Your task to perform on an android device: Search for Mexican restaurants on Maps Image 0: 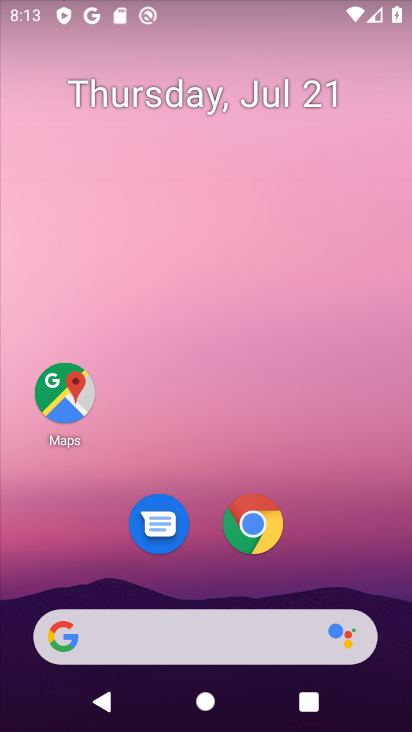
Step 0: press home button
Your task to perform on an android device: Search for Mexican restaurants on Maps Image 1: 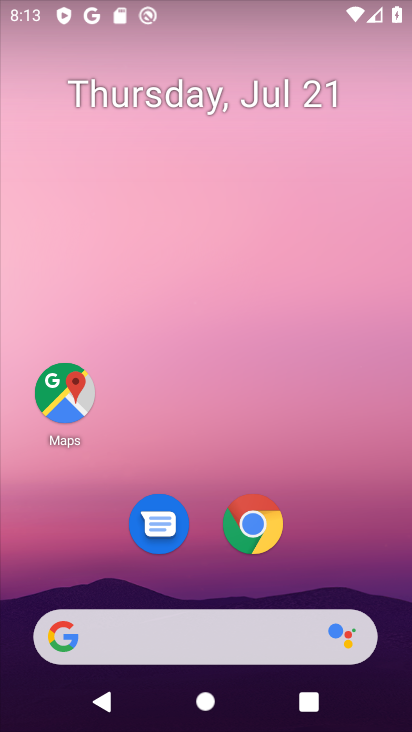
Step 1: click (67, 399)
Your task to perform on an android device: Search for Mexican restaurants on Maps Image 2: 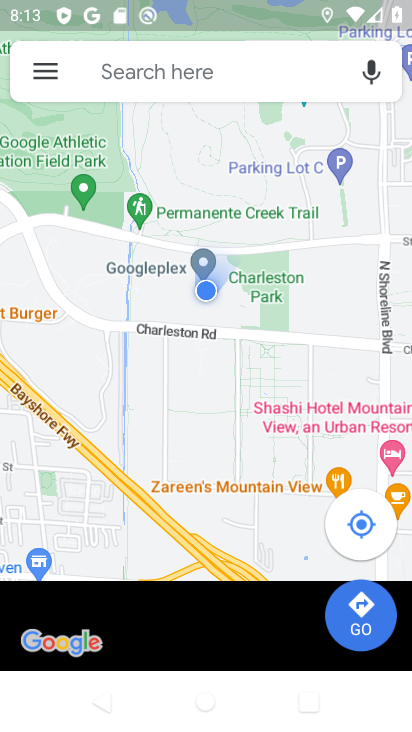
Step 2: click (175, 72)
Your task to perform on an android device: Search for Mexican restaurants on Maps Image 3: 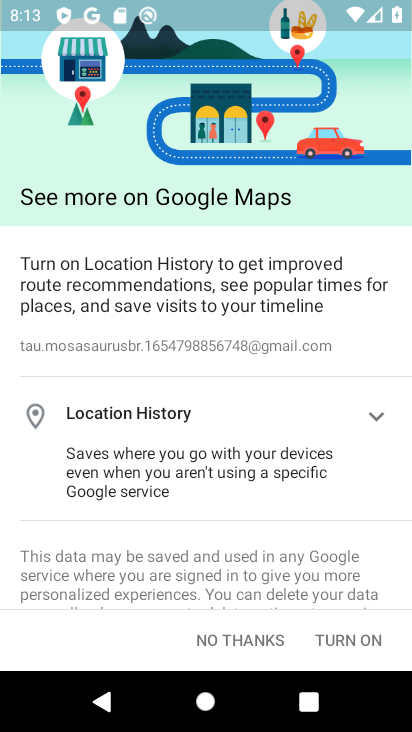
Step 3: click (234, 645)
Your task to perform on an android device: Search for Mexican restaurants on Maps Image 4: 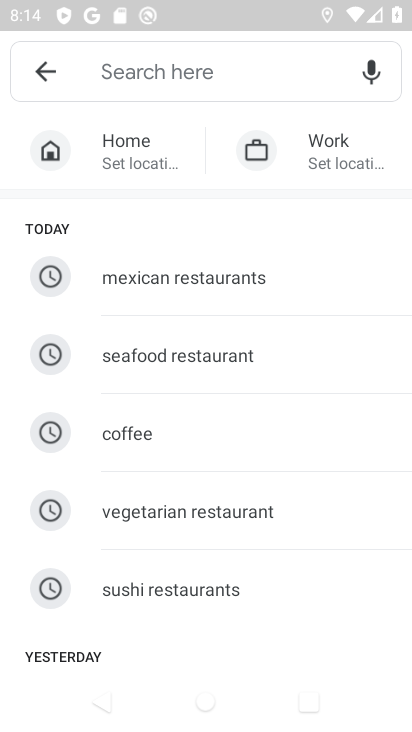
Step 4: click (164, 281)
Your task to perform on an android device: Search for Mexican restaurants on Maps Image 5: 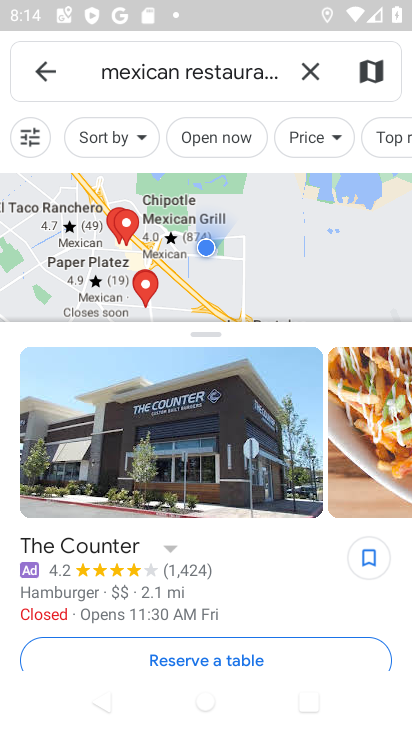
Step 5: task complete